Your task to perform on an android device: clear history in the chrome app Image 0: 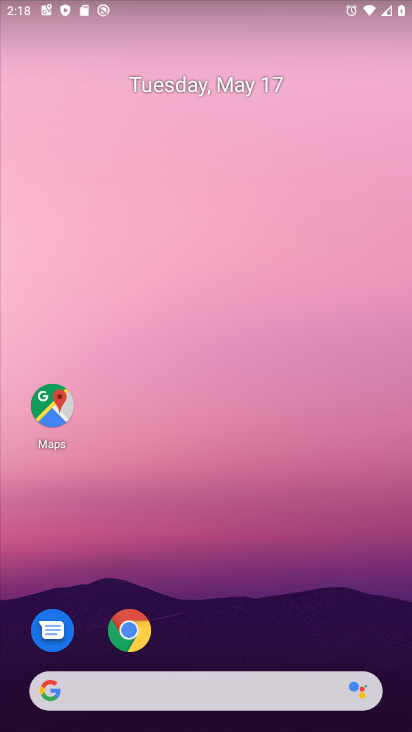
Step 0: drag from (294, 642) to (176, 212)
Your task to perform on an android device: clear history in the chrome app Image 1: 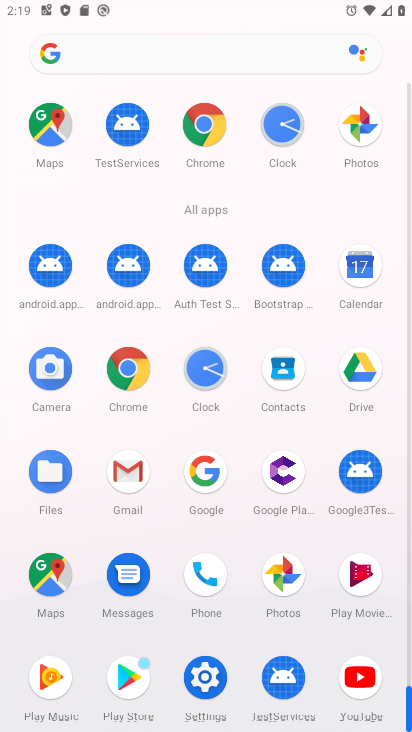
Step 1: click (192, 124)
Your task to perform on an android device: clear history in the chrome app Image 2: 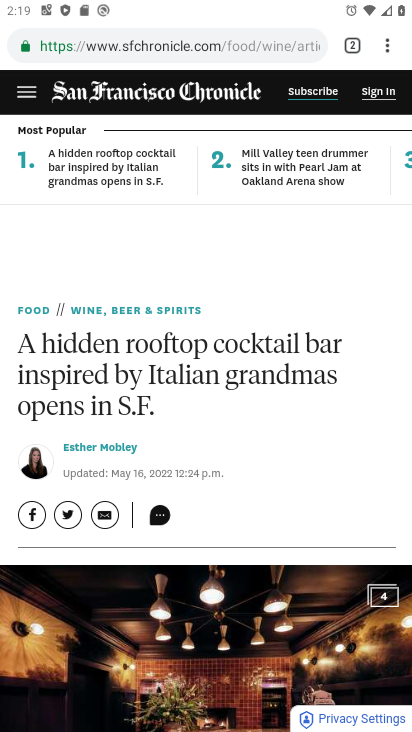
Step 2: drag from (388, 45) to (222, 254)
Your task to perform on an android device: clear history in the chrome app Image 3: 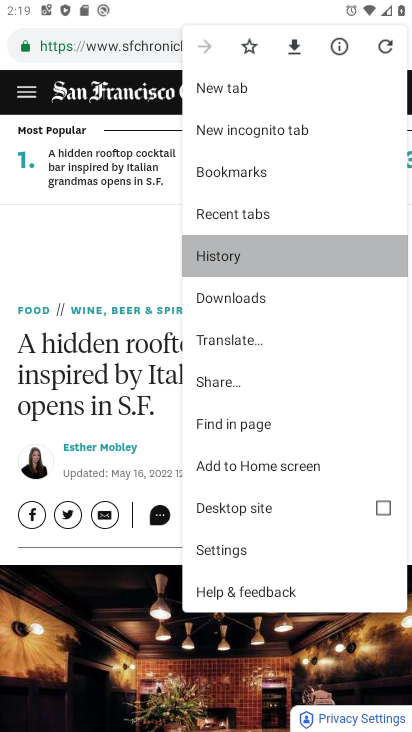
Step 3: click (224, 254)
Your task to perform on an android device: clear history in the chrome app Image 4: 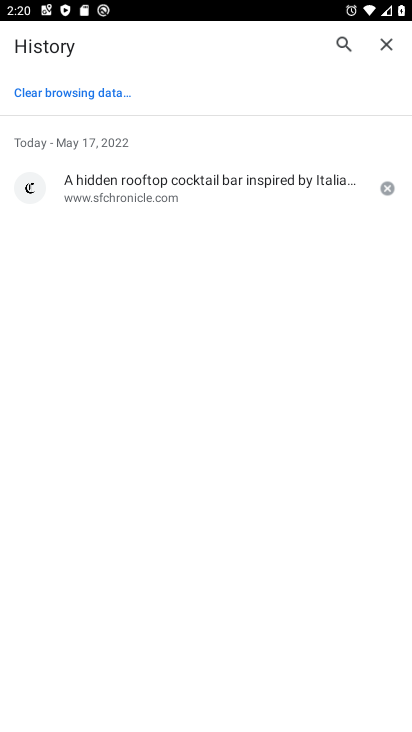
Step 4: click (386, 184)
Your task to perform on an android device: clear history in the chrome app Image 5: 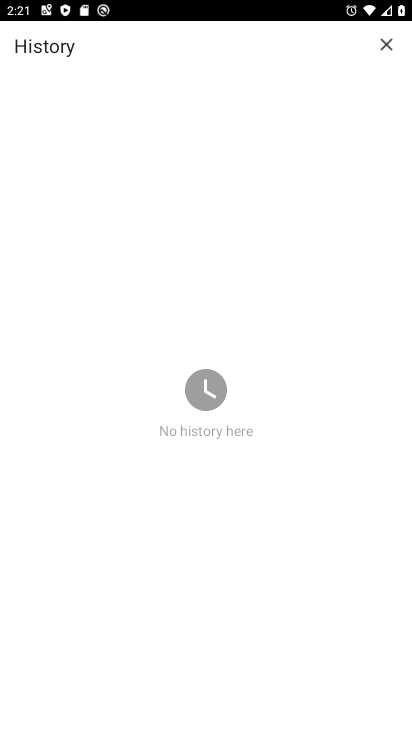
Step 5: click (376, 41)
Your task to perform on an android device: clear history in the chrome app Image 6: 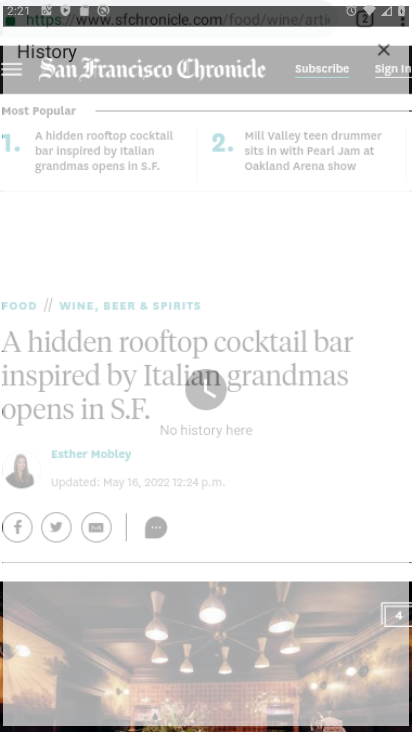
Step 6: task complete